Your task to perform on an android device: Open the calendar and show me this week's events? Image 0: 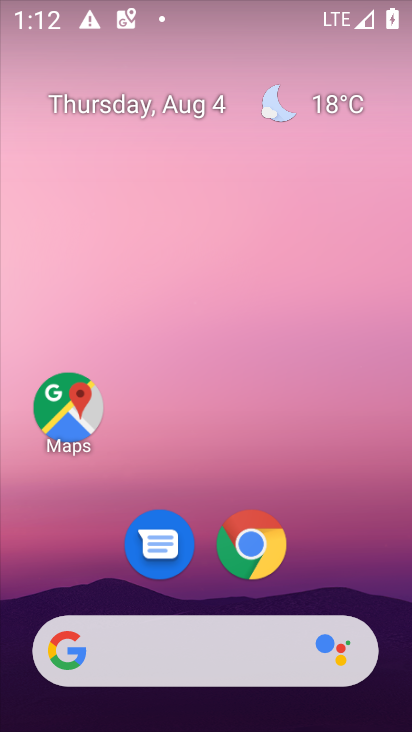
Step 0: drag from (387, 706) to (323, 173)
Your task to perform on an android device: Open the calendar and show me this week's events? Image 1: 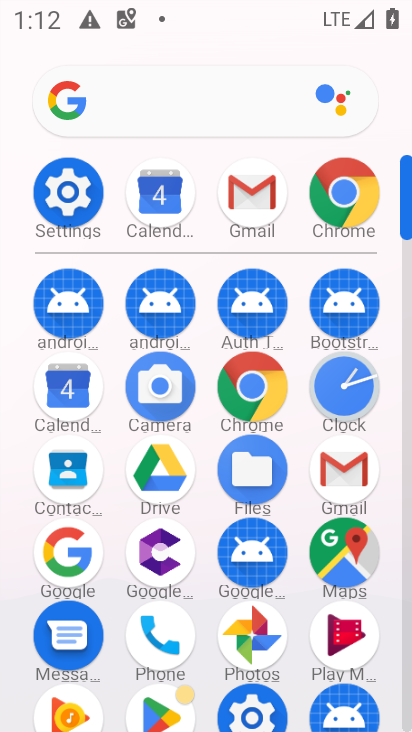
Step 1: click (65, 397)
Your task to perform on an android device: Open the calendar and show me this week's events? Image 2: 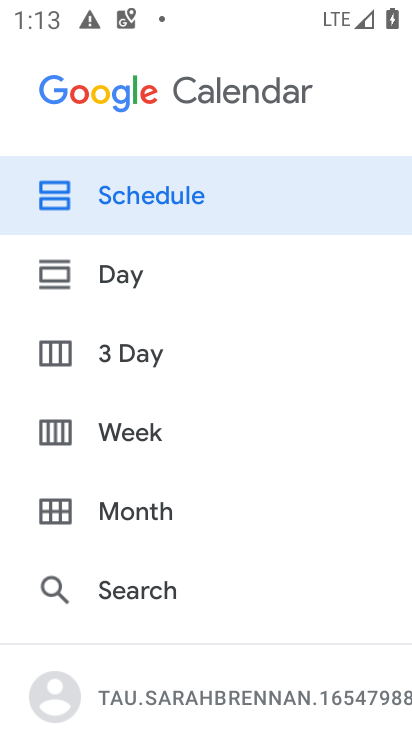
Step 2: click (122, 431)
Your task to perform on an android device: Open the calendar and show me this week's events? Image 3: 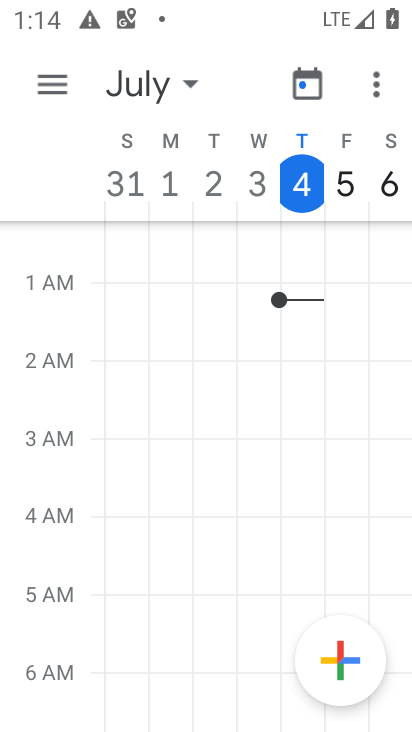
Step 3: task complete